Your task to perform on an android device: Play the last video I watched on Youtube Image 0: 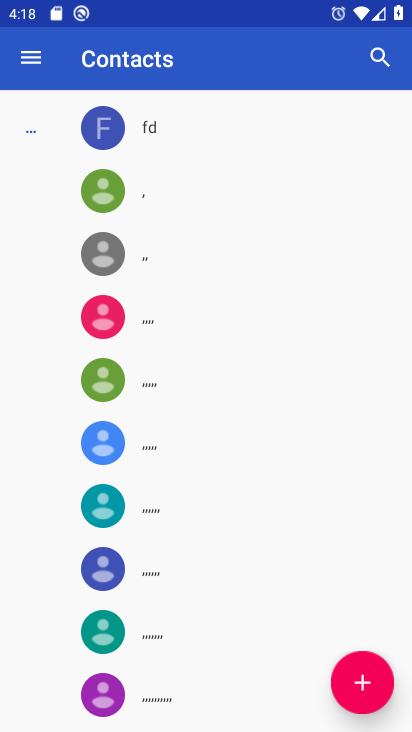
Step 0: press home button
Your task to perform on an android device: Play the last video I watched on Youtube Image 1: 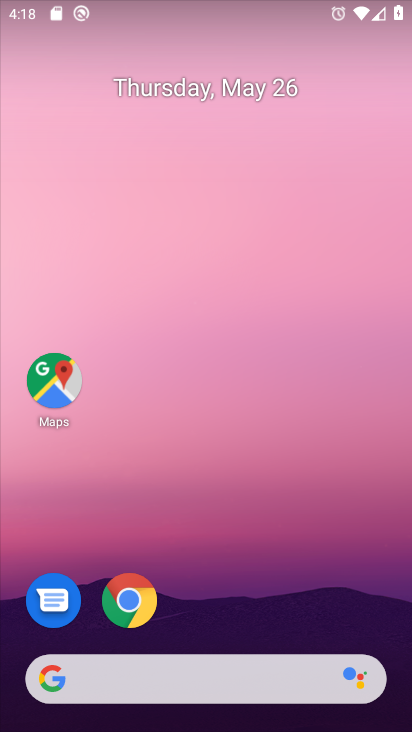
Step 1: drag from (247, 623) to (280, 27)
Your task to perform on an android device: Play the last video I watched on Youtube Image 2: 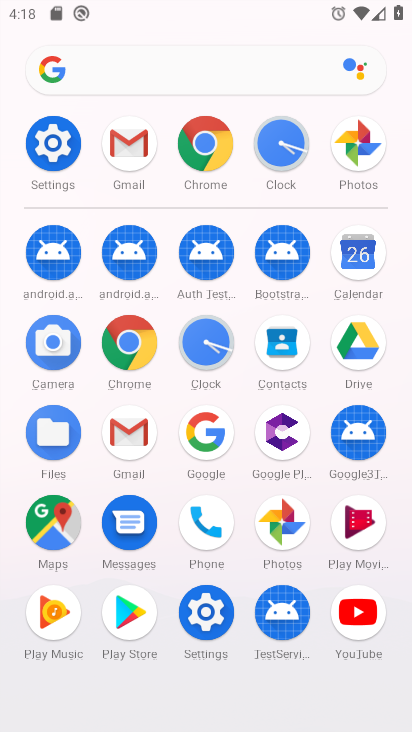
Step 2: click (353, 635)
Your task to perform on an android device: Play the last video I watched on Youtube Image 3: 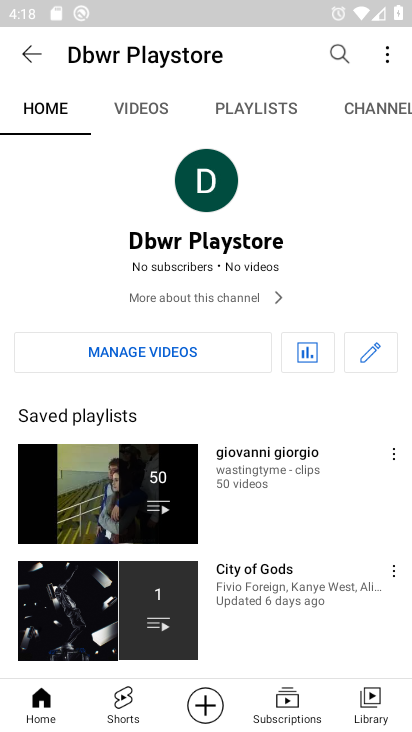
Step 3: click (374, 695)
Your task to perform on an android device: Play the last video I watched on Youtube Image 4: 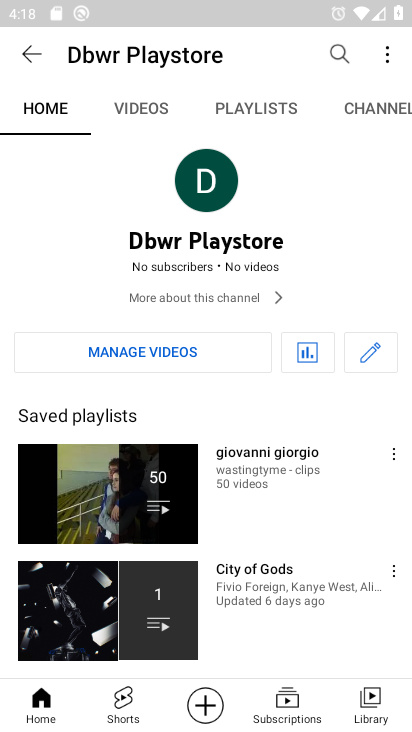
Step 4: click (367, 704)
Your task to perform on an android device: Play the last video I watched on Youtube Image 5: 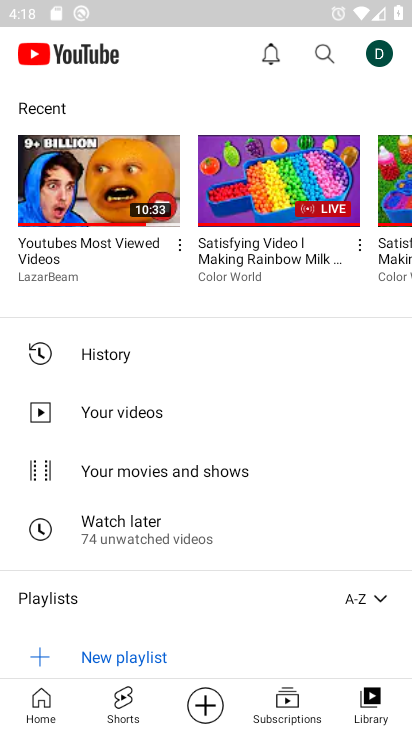
Step 5: click (67, 197)
Your task to perform on an android device: Play the last video I watched on Youtube Image 6: 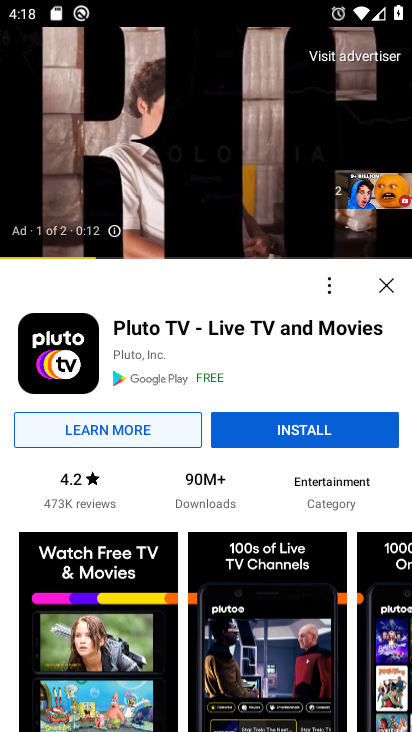
Step 6: click (387, 284)
Your task to perform on an android device: Play the last video I watched on Youtube Image 7: 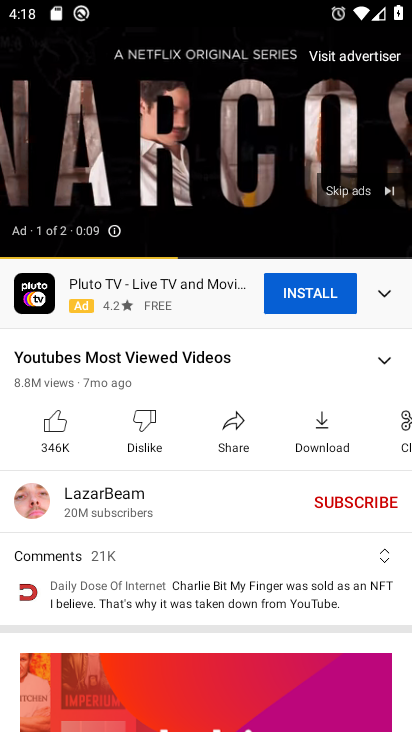
Step 7: click (364, 192)
Your task to perform on an android device: Play the last video I watched on Youtube Image 8: 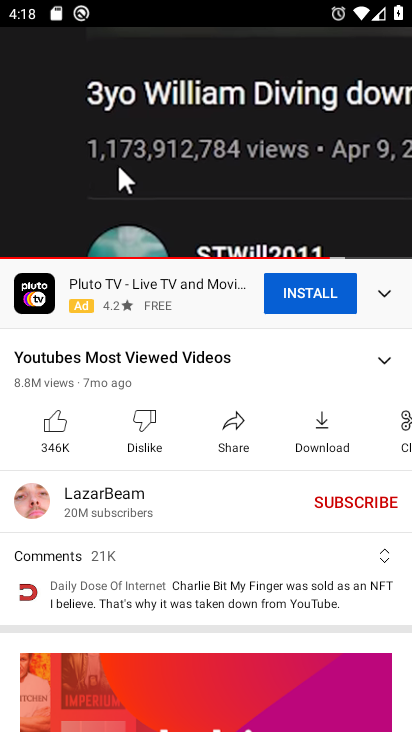
Step 8: task complete